Your task to perform on an android device: turn on sleep mode Image 0: 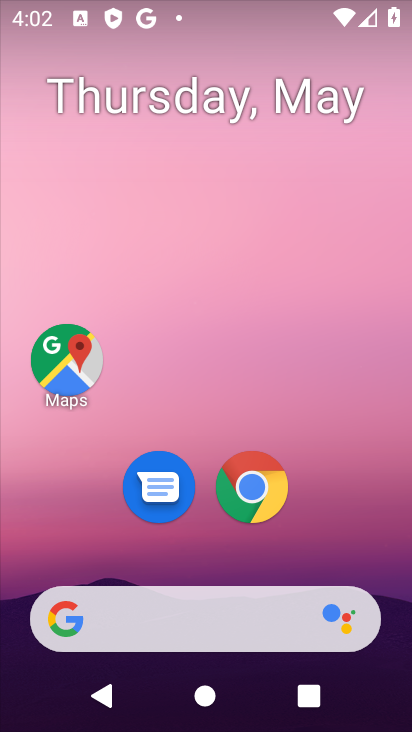
Step 0: drag from (207, 557) to (244, 145)
Your task to perform on an android device: turn on sleep mode Image 1: 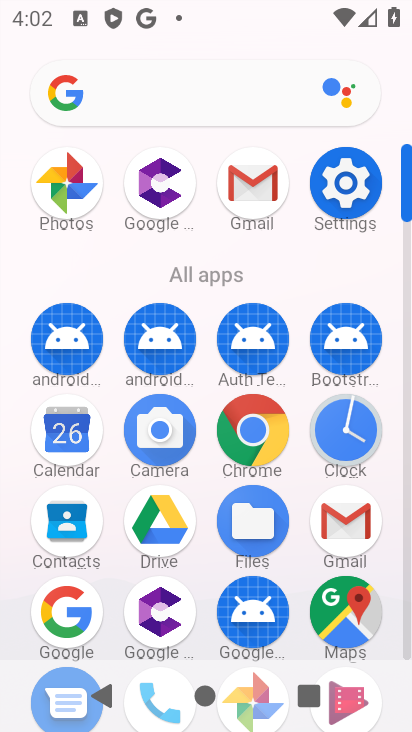
Step 1: click (334, 187)
Your task to perform on an android device: turn on sleep mode Image 2: 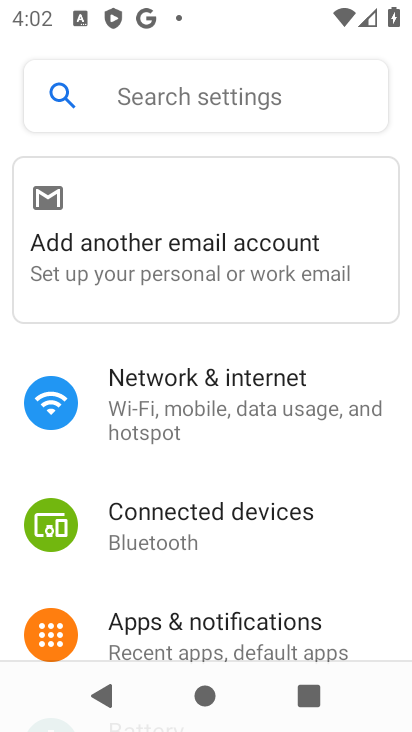
Step 2: drag from (212, 570) to (242, 335)
Your task to perform on an android device: turn on sleep mode Image 3: 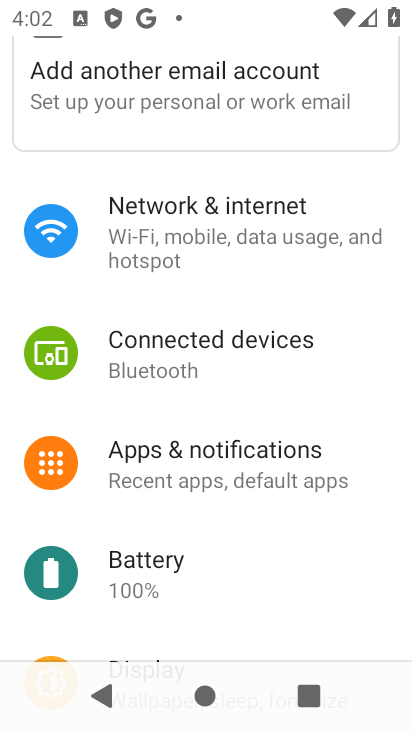
Step 3: drag from (205, 531) to (224, 376)
Your task to perform on an android device: turn on sleep mode Image 4: 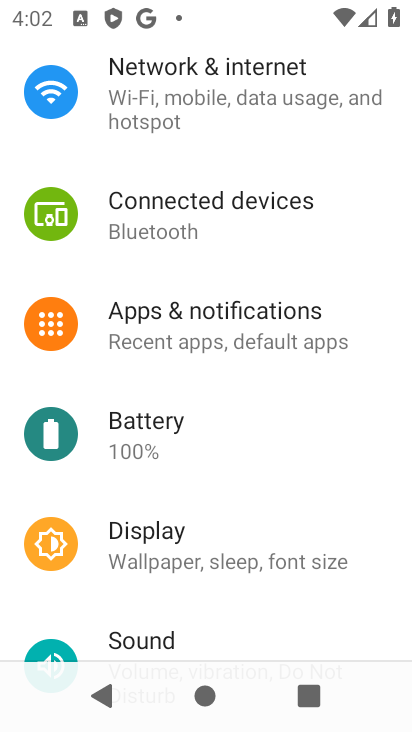
Step 4: click (192, 557)
Your task to perform on an android device: turn on sleep mode Image 5: 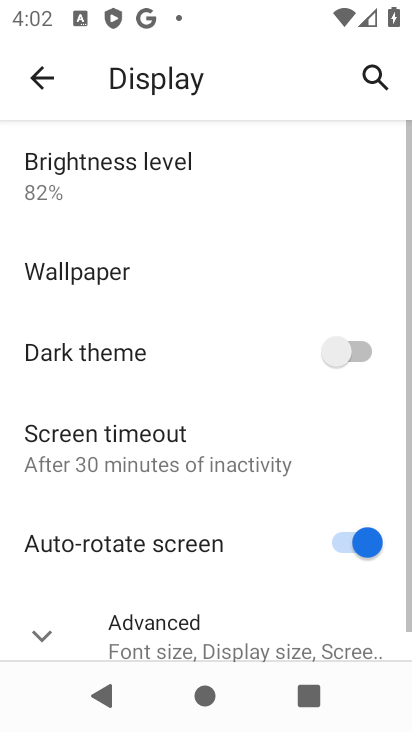
Step 5: click (173, 460)
Your task to perform on an android device: turn on sleep mode Image 6: 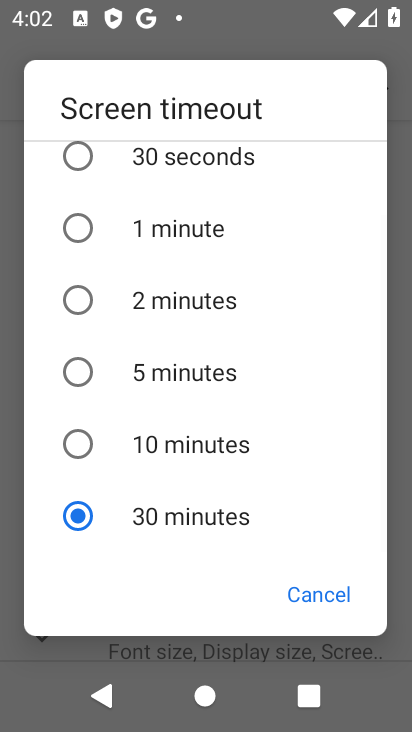
Step 6: click (154, 288)
Your task to perform on an android device: turn on sleep mode Image 7: 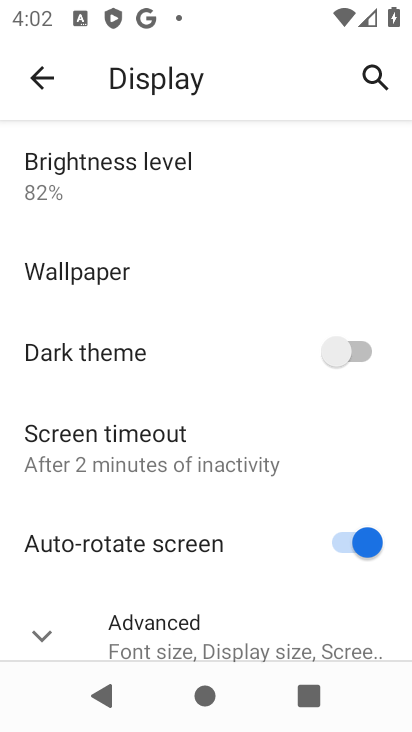
Step 7: task complete